Your task to perform on an android device: manage bookmarks in the chrome app Image 0: 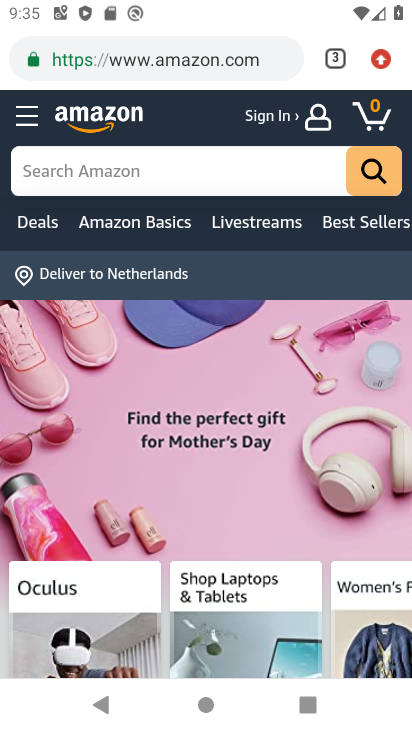
Step 0: click (374, 70)
Your task to perform on an android device: manage bookmarks in the chrome app Image 1: 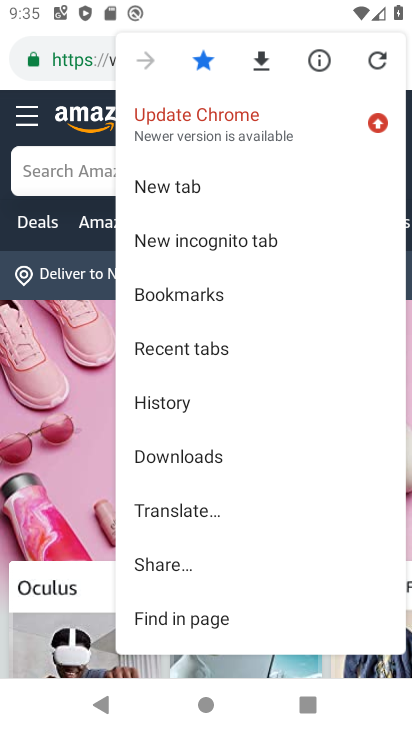
Step 1: click (280, 304)
Your task to perform on an android device: manage bookmarks in the chrome app Image 2: 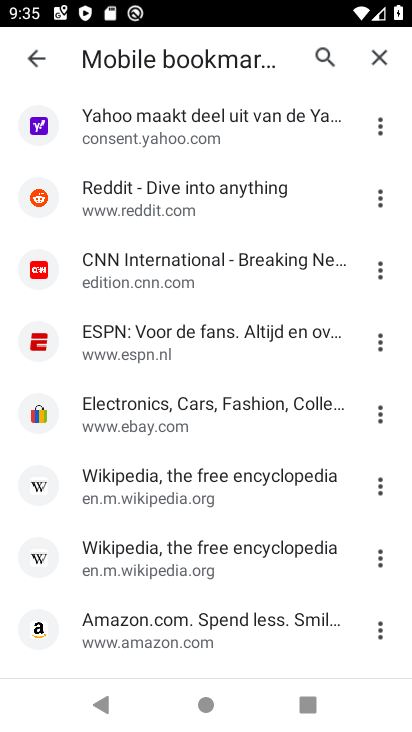
Step 2: click (366, 267)
Your task to perform on an android device: manage bookmarks in the chrome app Image 3: 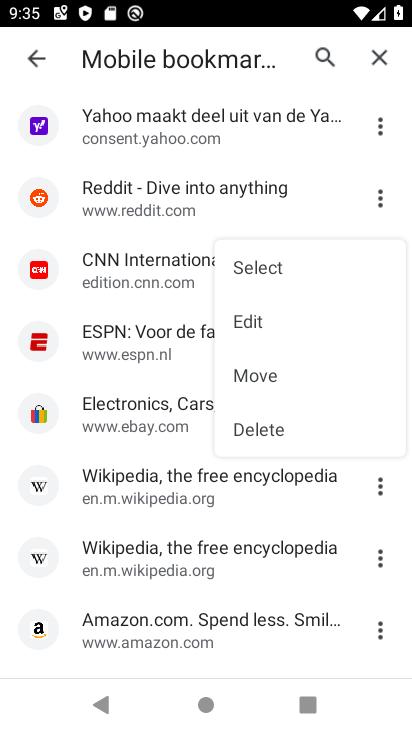
Step 3: click (285, 415)
Your task to perform on an android device: manage bookmarks in the chrome app Image 4: 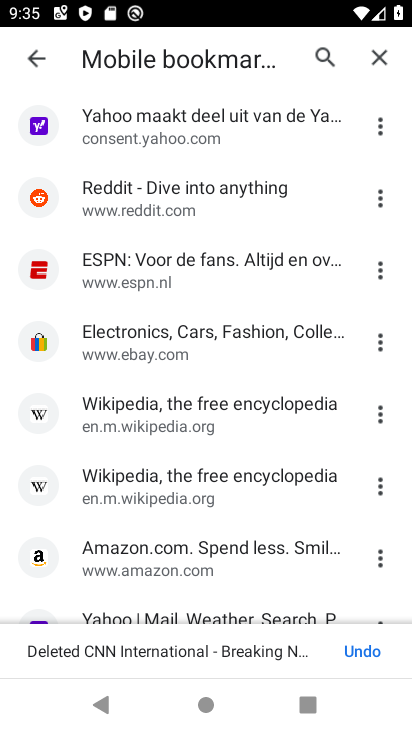
Step 4: task complete